Your task to perform on an android device: open app "Spotify" (install if not already installed), go to login, and select forgot password Image 0: 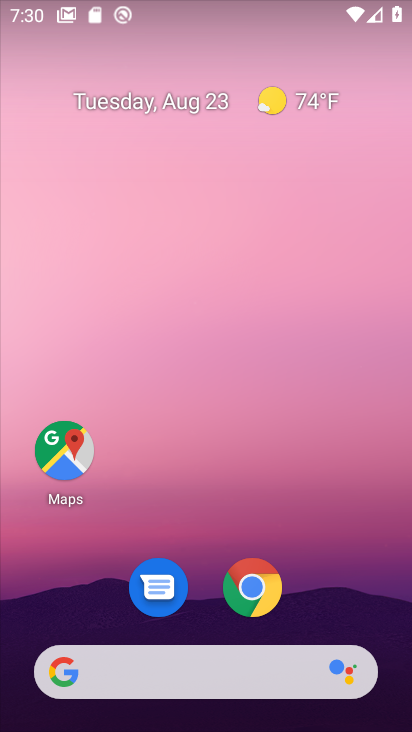
Step 0: press home button
Your task to perform on an android device: open app "Spotify" (install if not already installed), go to login, and select forgot password Image 1: 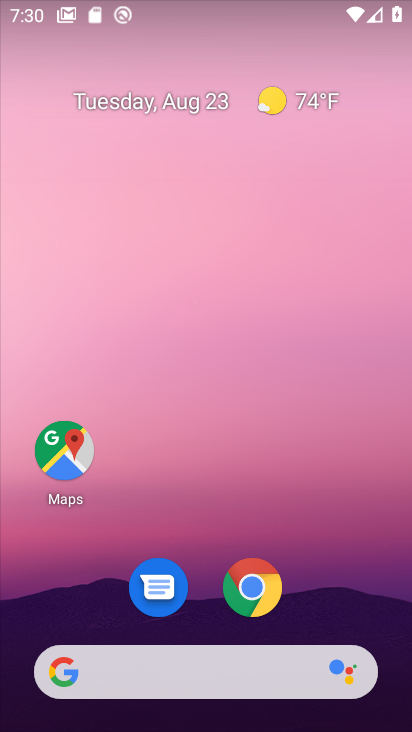
Step 1: drag from (329, 620) to (345, 0)
Your task to perform on an android device: open app "Spotify" (install if not already installed), go to login, and select forgot password Image 2: 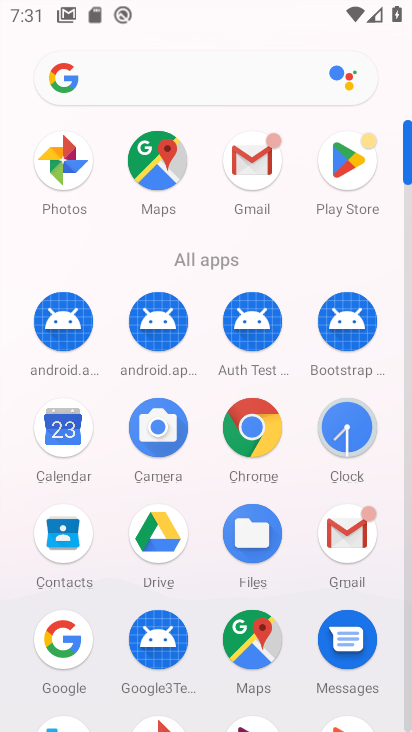
Step 2: click (345, 161)
Your task to perform on an android device: open app "Spotify" (install if not already installed), go to login, and select forgot password Image 3: 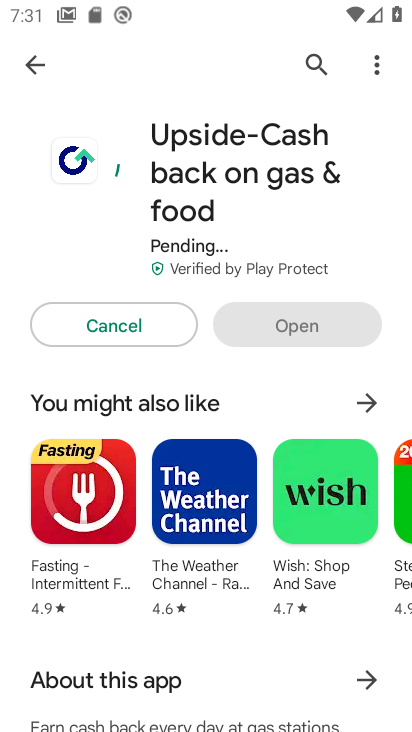
Step 3: click (41, 59)
Your task to perform on an android device: open app "Spotify" (install if not already installed), go to login, and select forgot password Image 4: 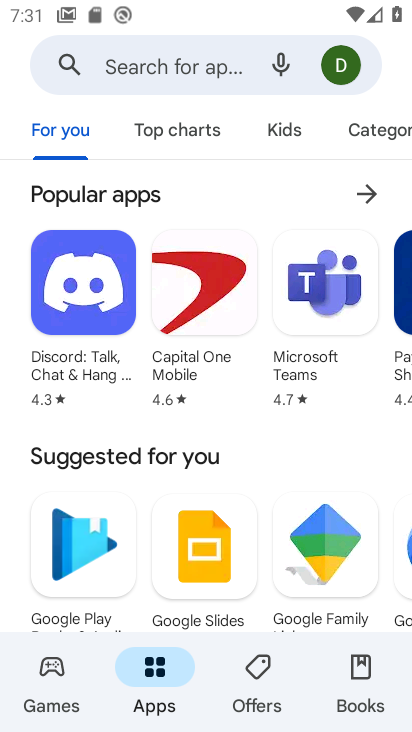
Step 4: click (338, 68)
Your task to perform on an android device: open app "Spotify" (install if not already installed), go to login, and select forgot password Image 5: 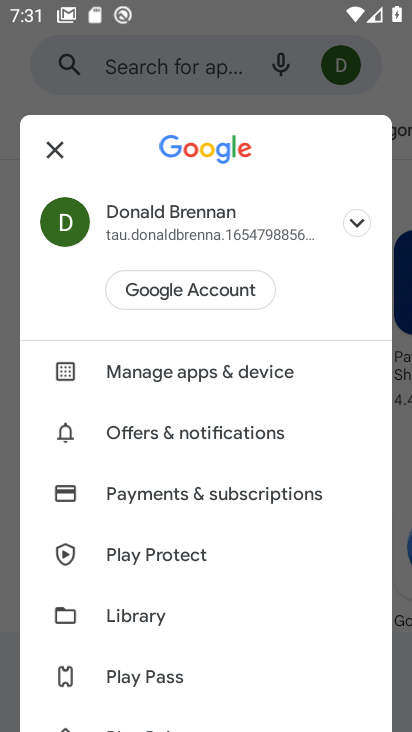
Step 5: click (251, 366)
Your task to perform on an android device: open app "Spotify" (install if not already installed), go to login, and select forgot password Image 6: 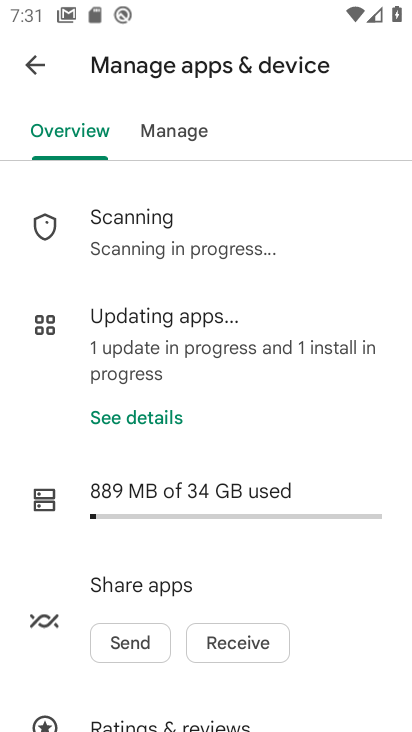
Step 6: click (169, 318)
Your task to perform on an android device: open app "Spotify" (install if not already installed), go to login, and select forgot password Image 7: 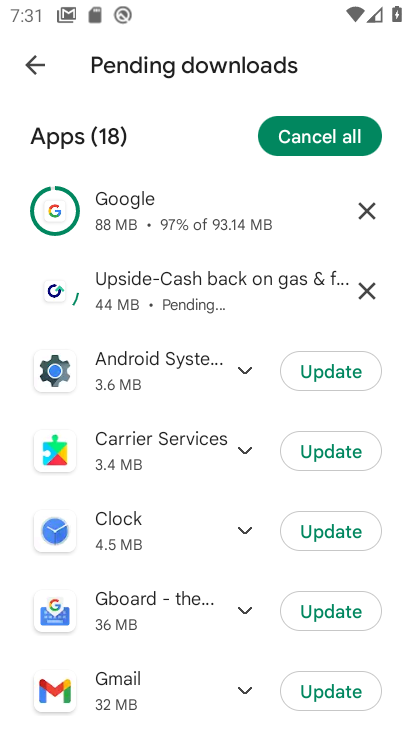
Step 7: click (324, 140)
Your task to perform on an android device: open app "Spotify" (install if not already installed), go to login, and select forgot password Image 8: 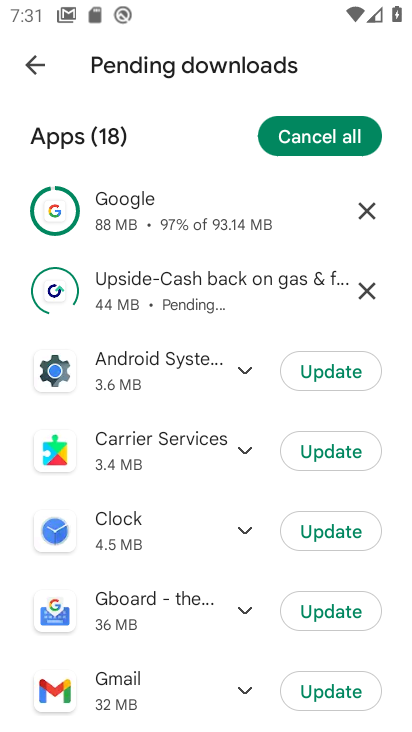
Step 8: click (35, 64)
Your task to perform on an android device: open app "Spotify" (install if not already installed), go to login, and select forgot password Image 9: 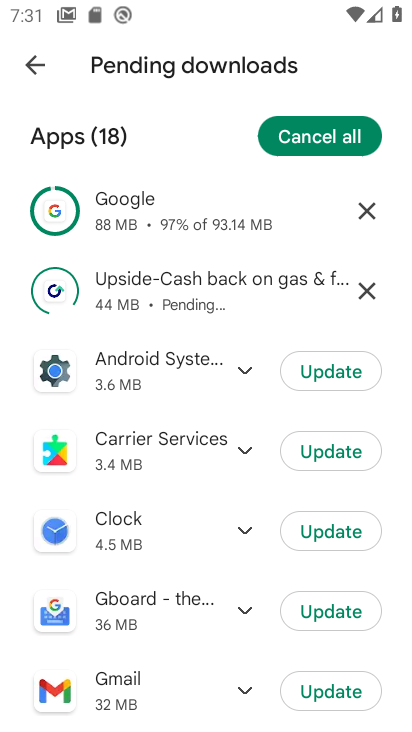
Step 9: click (43, 66)
Your task to perform on an android device: open app "Spotify" (install if not already installed), go to login, and select forgot password Image 10: 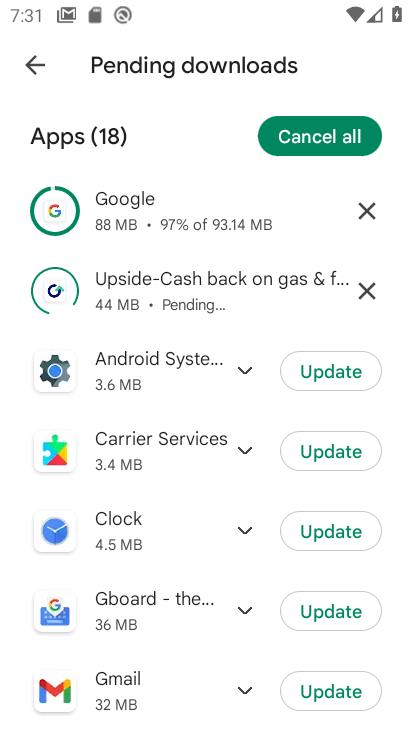
Step 10: press back button
Your task to perform on an android device: open app "Spotify" (install if not already installed), go to login, and select forgot password Image 11: 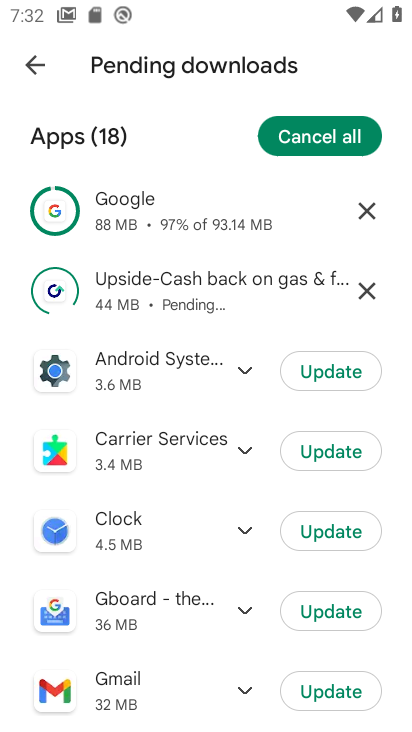
Step 11: click (364, 215)
Your task to perform on an android device: open app "Spotify" (install if not already installed), go to login, and select forgot password Image 12: 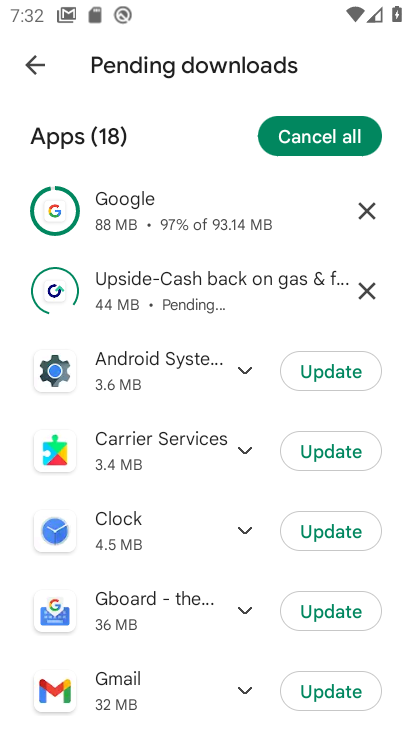
Step 12: click (364, 215)
Your task to perform on an android device: open app "Spotify" (install if not already installed), go to login, and select forgot password Image 13: 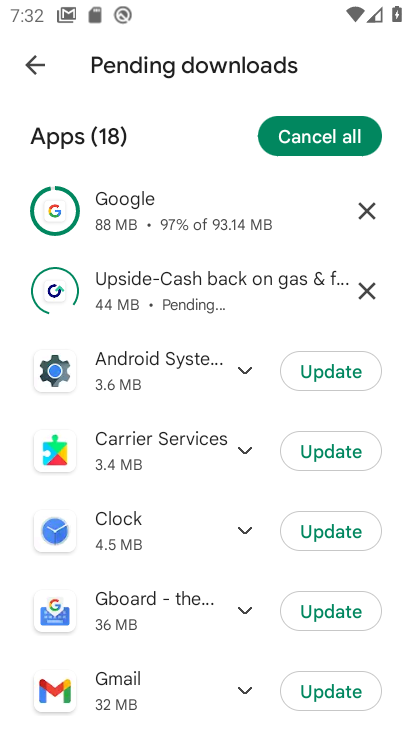
Step 13: click (364, 215)
Your task to perform on an android device: open app "Spotify" (install if not already installed), go to login, and select forgot password Image 14: 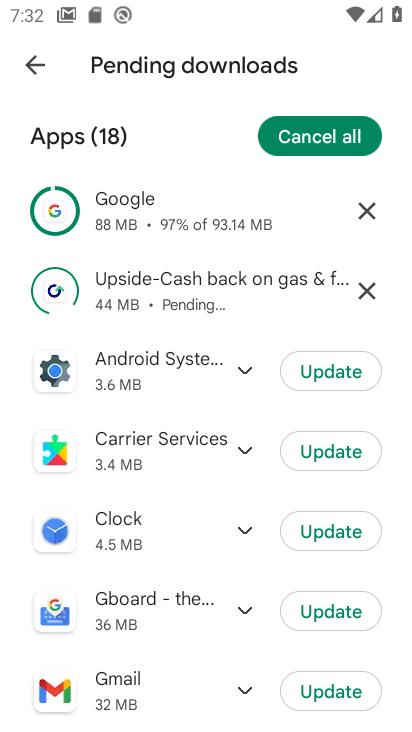
Step 14: click (364, 215)
Your task to perform on an android device: open app "Spotify" (install if not already installed), go to login, and select forgot password Image 15: 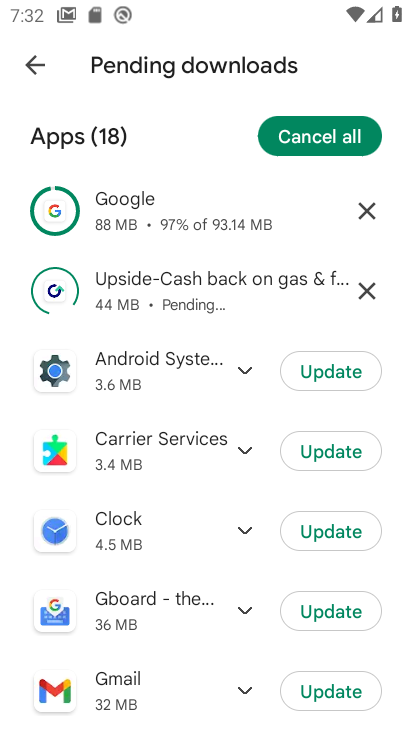
Step 15: click (364, 215)
Your task to perform on an android device: open app "Spotify" (install if not already installed), go to login, and select forgot password Image 16: 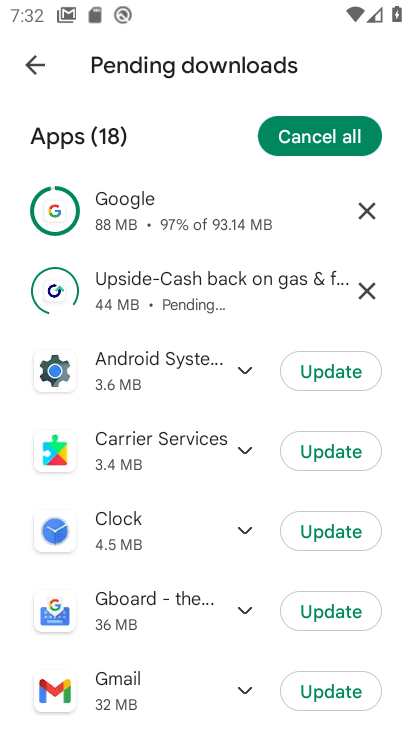
Step 16: click (377, 287)
Your task to perform on an android device: open app "Spotify" (install if not already installed), go to login, and select forgot password Image 17: 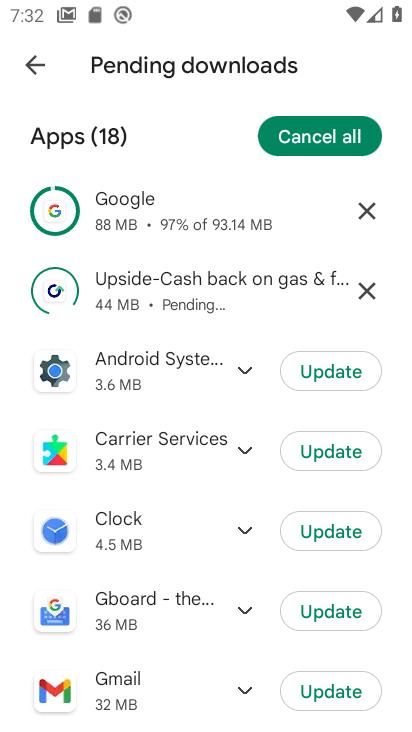
Step 17: click (362, 216)
Your task to perform on an android device: open app "Spotify" (install if not already installed), go to login, and select forgot password Image 18: 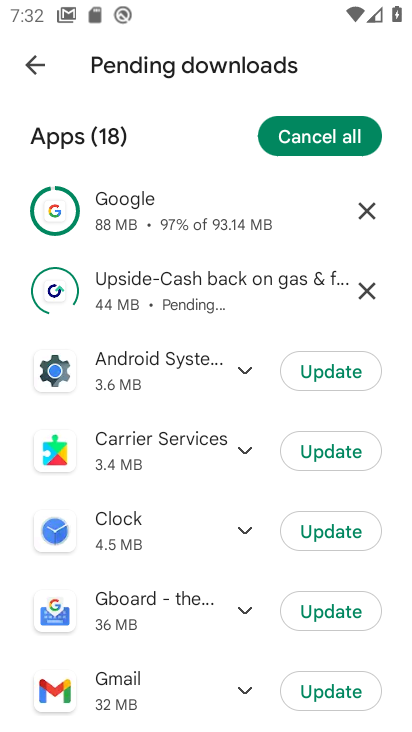
Step 18: click (362, 216)
Your task to perform on an android device: open app "Spotify" (install if not already installed), go to login, and select forgot password Image 19: 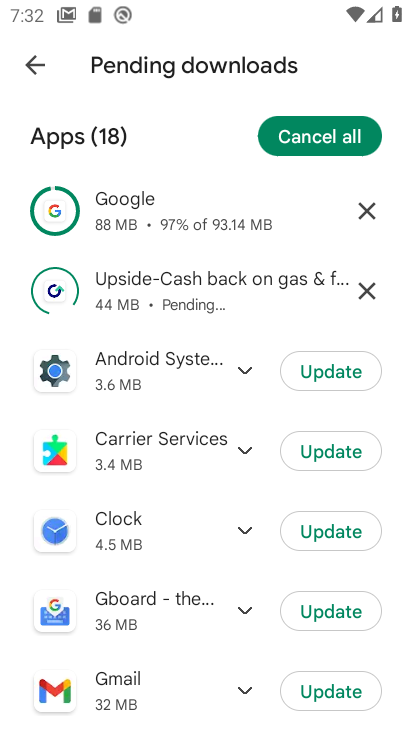
Step 19: press back button
Your task to perform on an android device: open app "Spotify" (install if not already installed), go to login, and select forgot password Image 20: 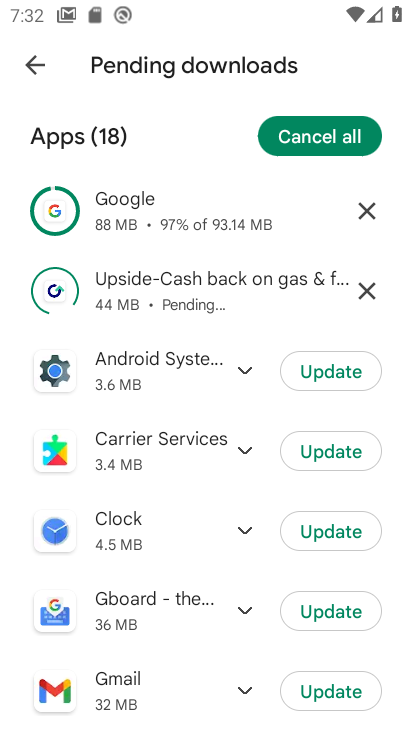
Step 20: click (213, 174)
Your task to perform on an android device: open app "Spotify" (install if not already installed), go to login, and select forgot password Image 21: 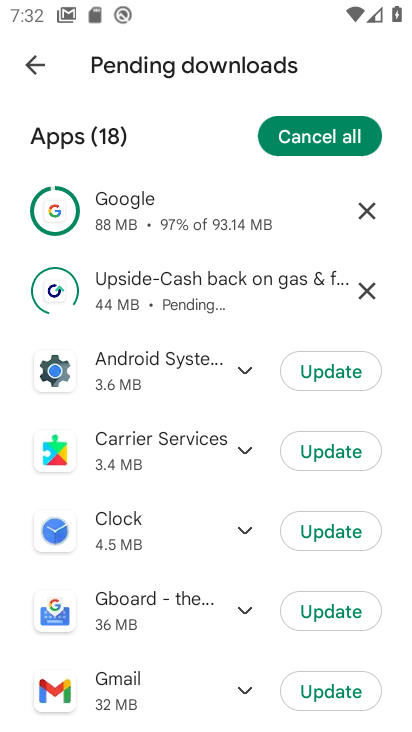
Step 21: task complete